Your task to perform on an android device: turn off airplane mode Image 0: 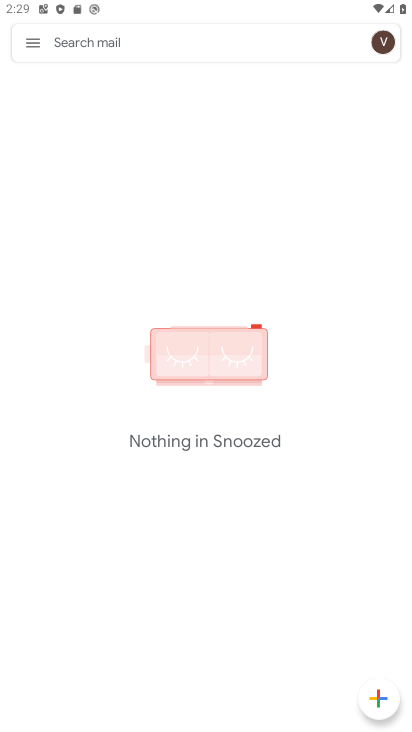
Step 0: press home button
Your task to perform on an android device: turn off airplane mode Image 1: 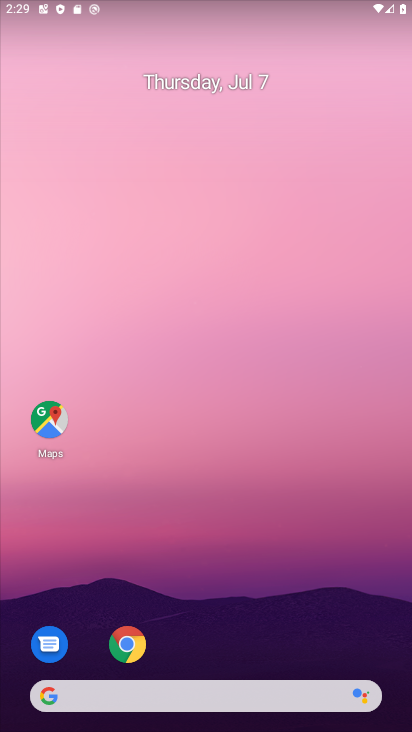
Step 1: task complete